Your task to perform on an android device: Show me the alarms in the clock app Image 0: 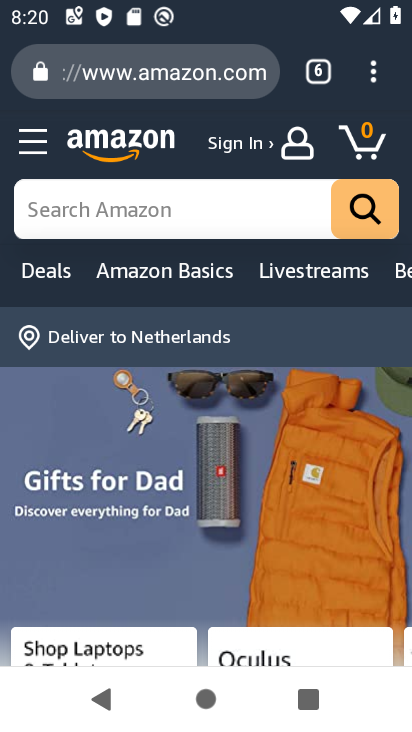
Step 0: press home button
Your task to perform on an android device: Show me the alarms in the clock app Image 1: 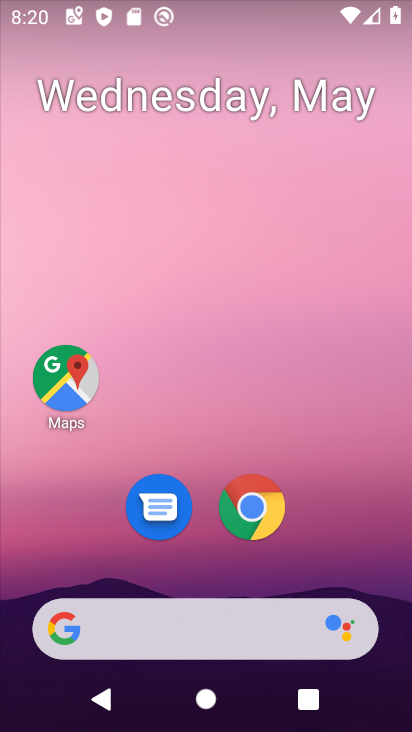
Step 1: drag from (318, 525) to (309, 328)
Your task to perform on an android device: Show me the alarms in the clock app Image 2: 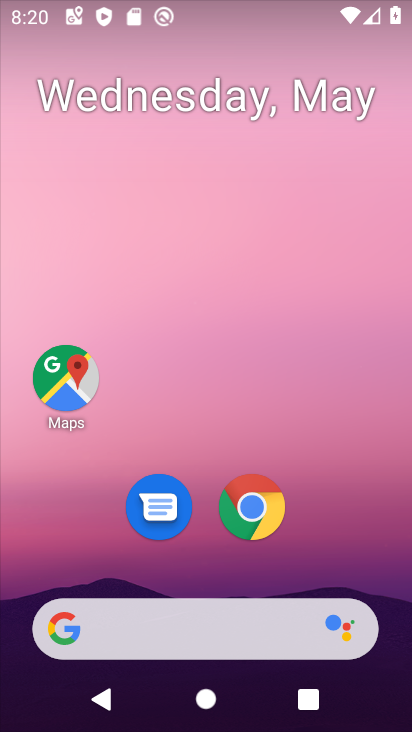
Step 2: drag from (299, 583) to (327, 251)
Your task to perform on an android device: Show me the alarms in the clock app Image 3: 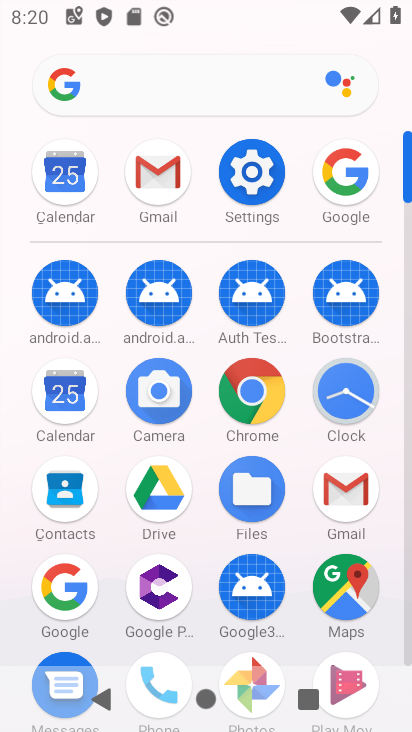
Step 3: click (345, 399)
Your task to perform on an android device: Show me the alarms in the clock app Image 4: 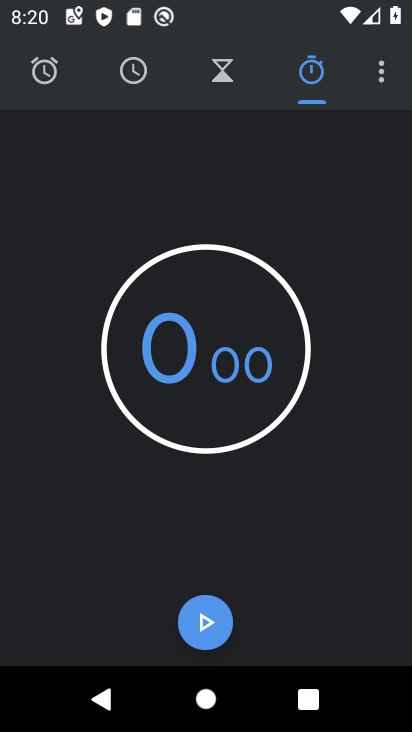
Step 4: click (372, 67)
Your task to perform on an android device: Show me the alarms in the clock app Image 5: 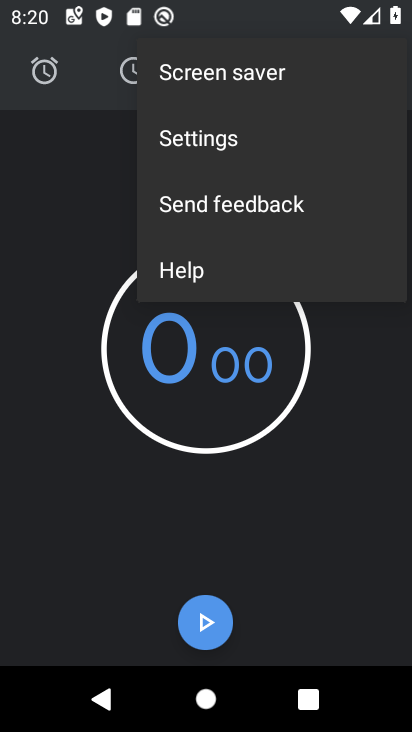
Step 5: click (49, 78)
Your task to perform on an android device: Show me the alarms in the clock app Image 6: 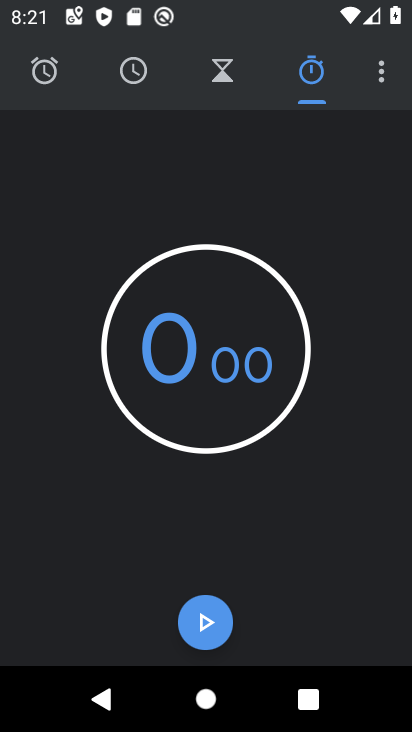
Step 6: click (48, 78)
Your task to perform on an android device: Show me the alarms in the clock app Image 7: 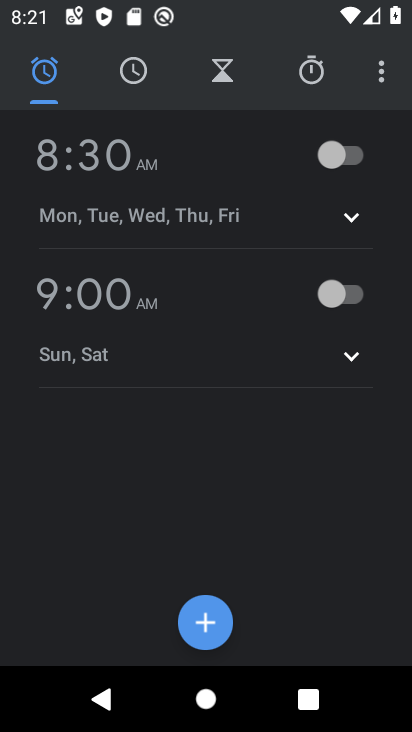
Step 7: task complete